Your task to perform on an android device: open a new tab in the chrome app Image 0: 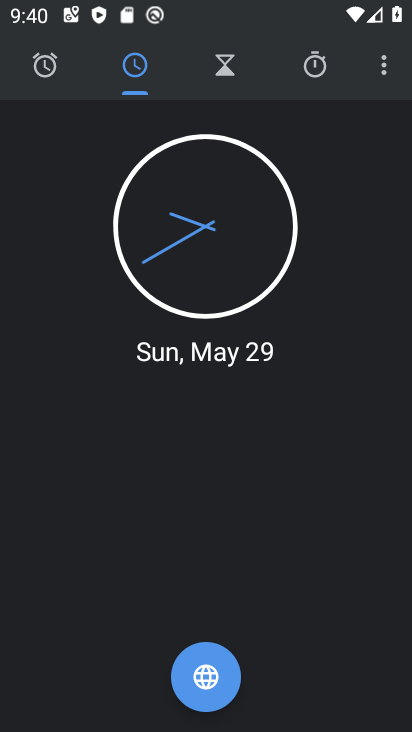
Step 0: press home button
Your task to perform on an android device: open a new tab in the chrome app Image 1: 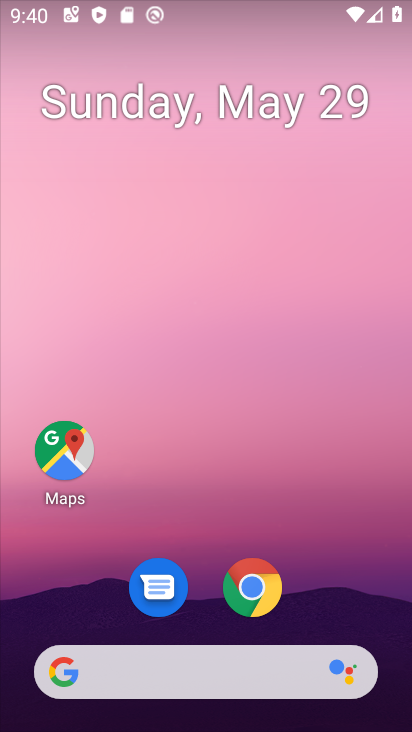
Step 1: click (251, 595)
Your task to perform on an android device: open a new tab in the chrome app Image 2: 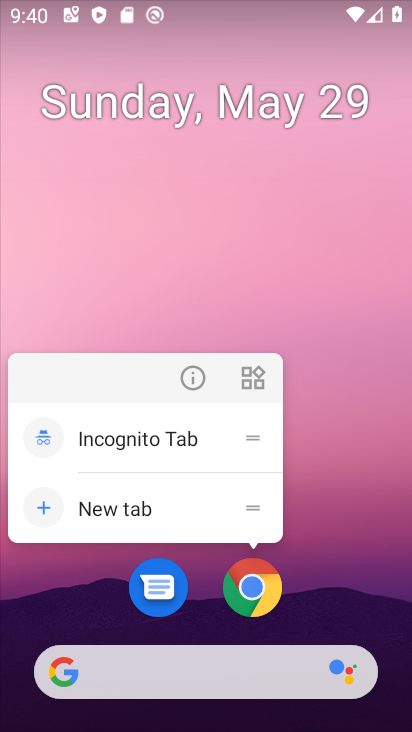
Step 2: click (266, 593)
Your task to perform on an android device: open a new tab in the chrome app Image 3: 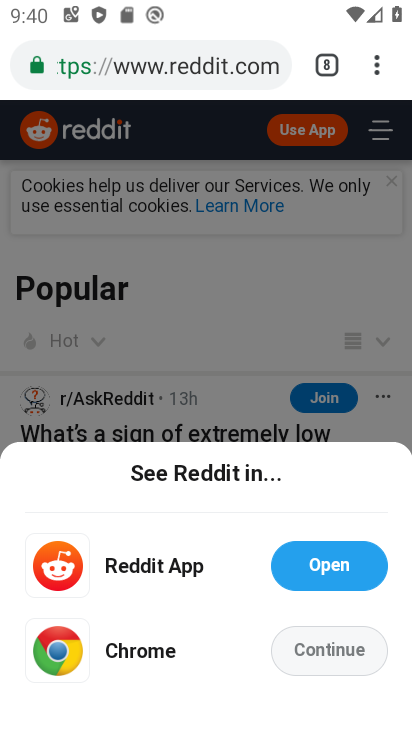
Step 3: task complete